Your task to perform on an android device: check storage Image 0: 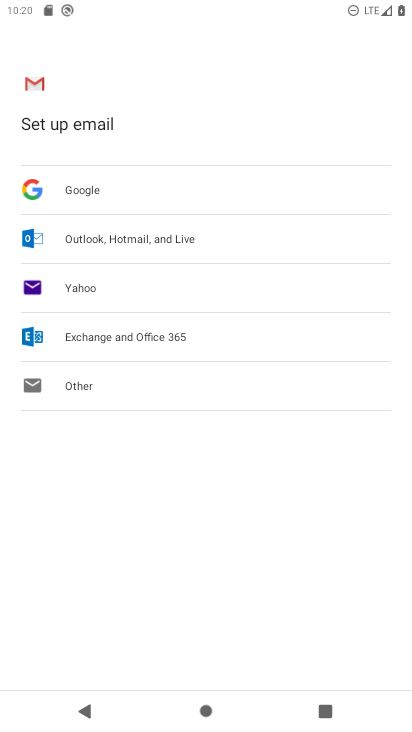
Step 0: press home button
Your task to perform on an android device: check storage Image 1: 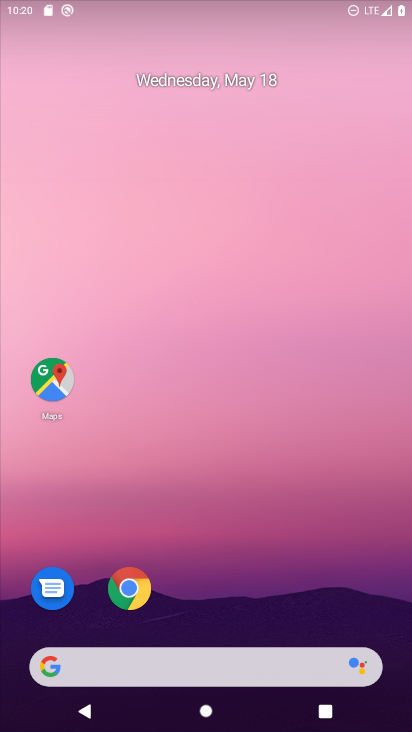
Step 1: drag from (239, 548) to (254, 3)
Your task to perform on an android device: check storage Image 2: 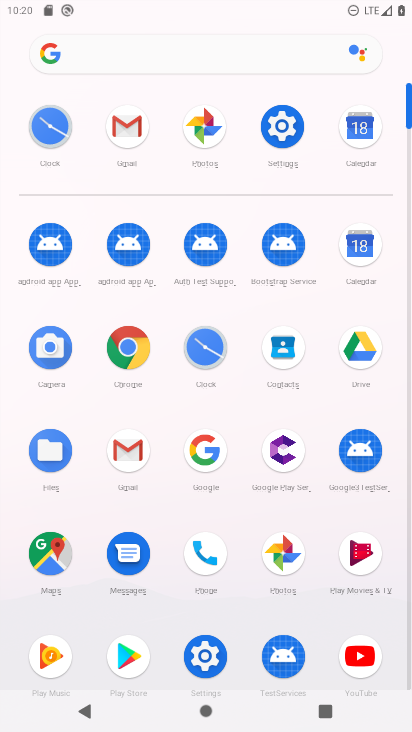
Step 2: click (272, 132)
Your task to perform on an android device: check storage Image 3: 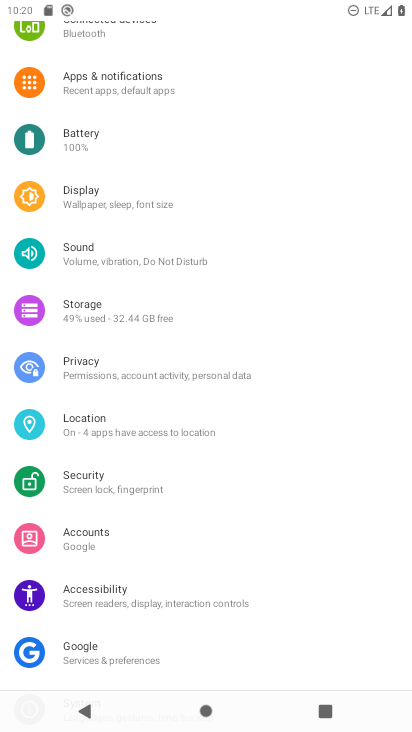
Step 3: click (79, 320)
Your task to perform on an android device: check storage Image 4: 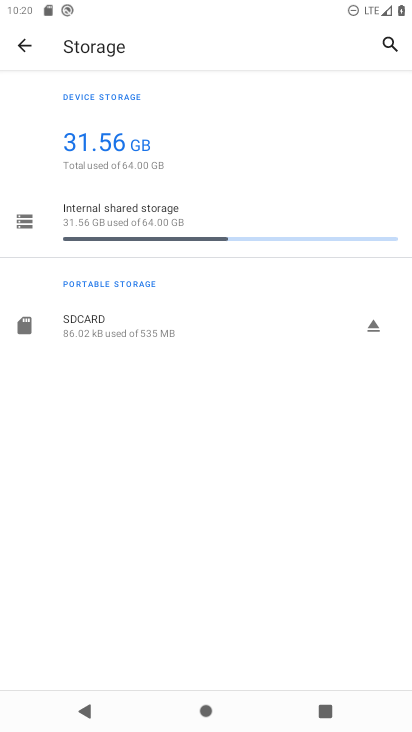
Step 4: click (122, 225)
Your task to perform on an android device: check storage Image 5: 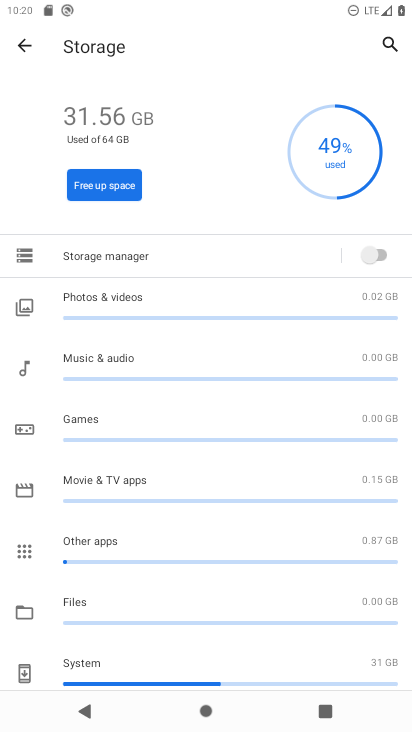
Step 5: task complete